Your task to perform on an android device: Open internet settings Image 0: 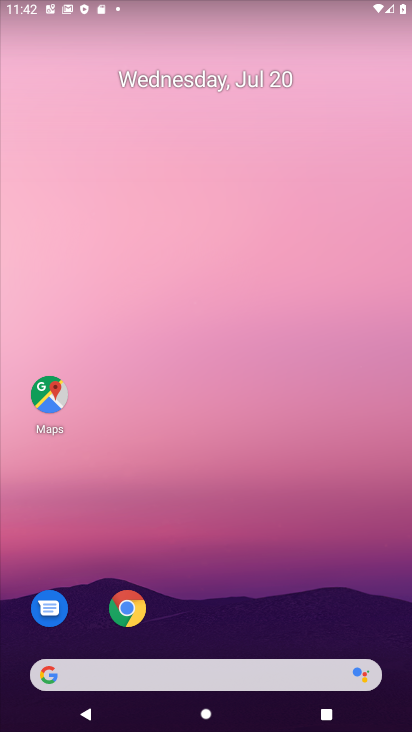
Step 0: press home button
Your task to perform on an android device: Open internet settings Image 1: 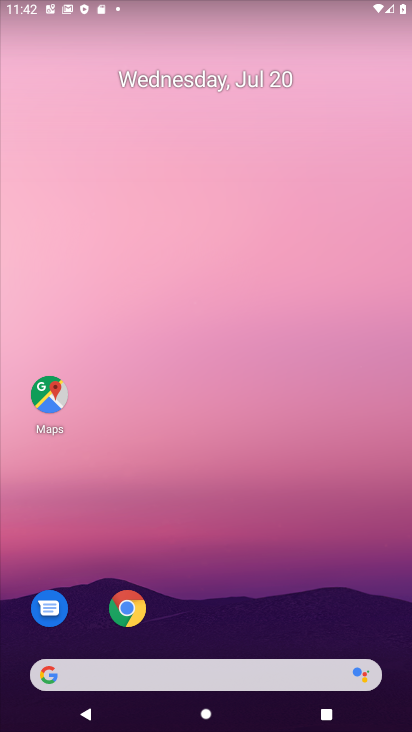
Step 1: drag from (266, 618) to (176, 176)
Your task to perform on an android device: Open internet settings Image 2: 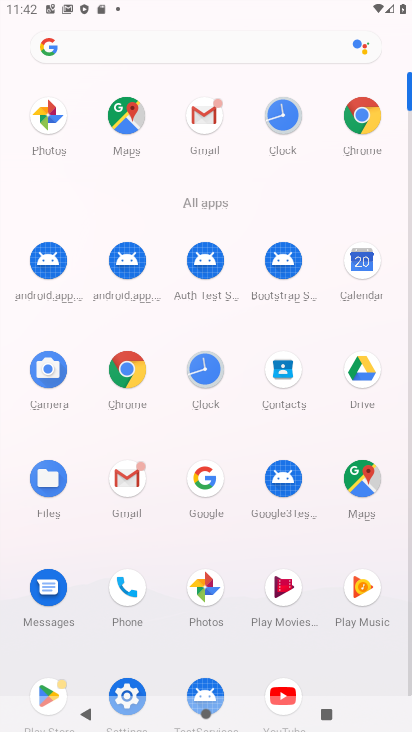
Step 2: click (122, 679)
Your task to perform on an android device: Open internet settings Image 3: 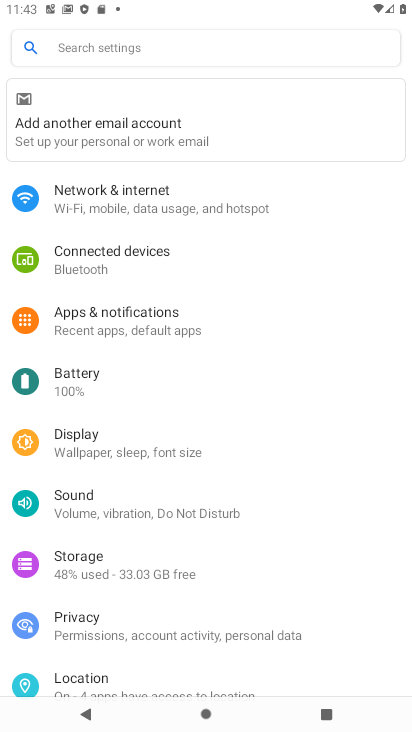
Step 3: click (185, 197)
Your task to perform on an android device: Open internet settings Image 4: 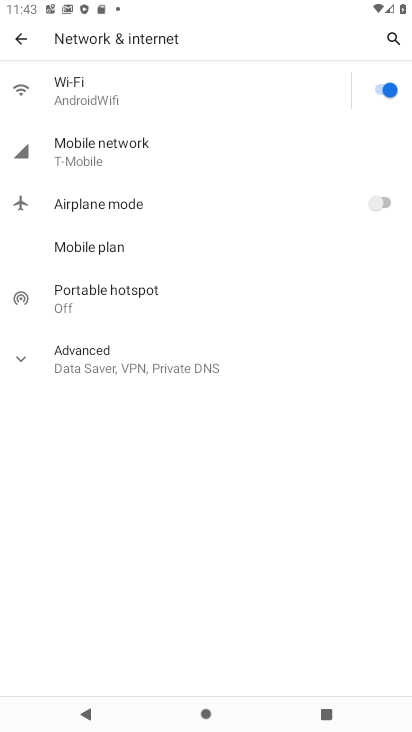
Step 4: task complete